Your task to perform on an android device: Open ESPN.com Image 0: 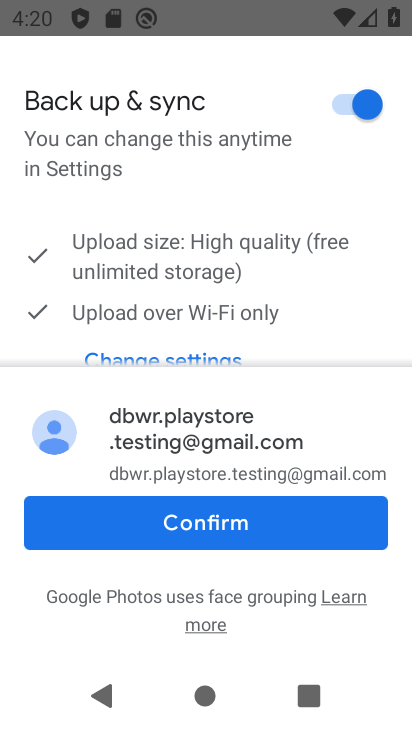
Step 0: press home button
Your task to perform on an android device: Open ESPN.com Image 1: 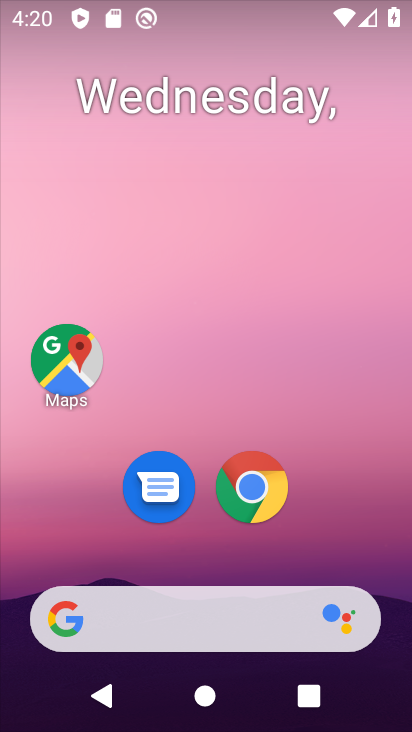
Step 1: click (247, 484)
Your task to perform on an android device: Open ESPN.com Image 2: 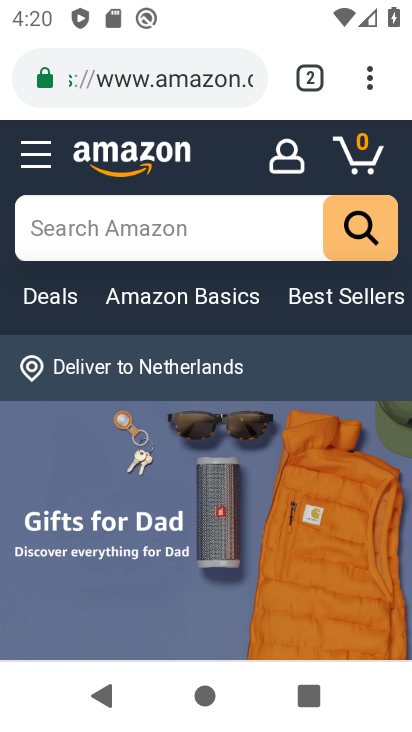
Step 2: click (202, 68)
Your task to perform on an android device: Open ESPN.com Image 3: 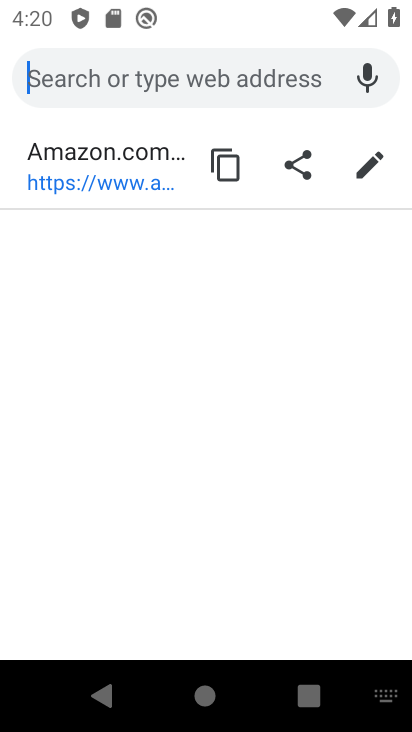
Step 3: type "espn.com"
Your task to perform on an android device: Open ESPN.com Image 4: 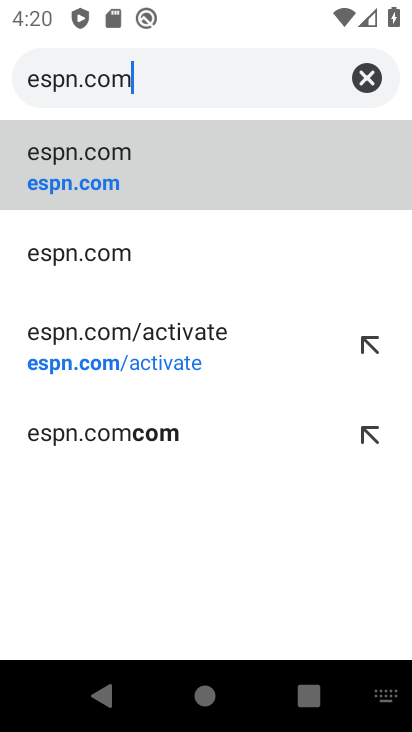
Step 4: click (79, 180)
Your task to perform on an android device: Open ESPN.com Image 5: 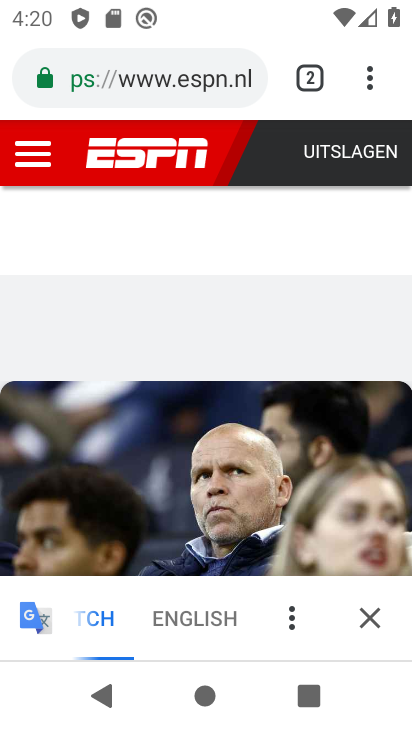
Step 5: task complete